Your task to perform on an android device: open app "ColorNote Notepad Notes" (install if not already installed) Image 0: 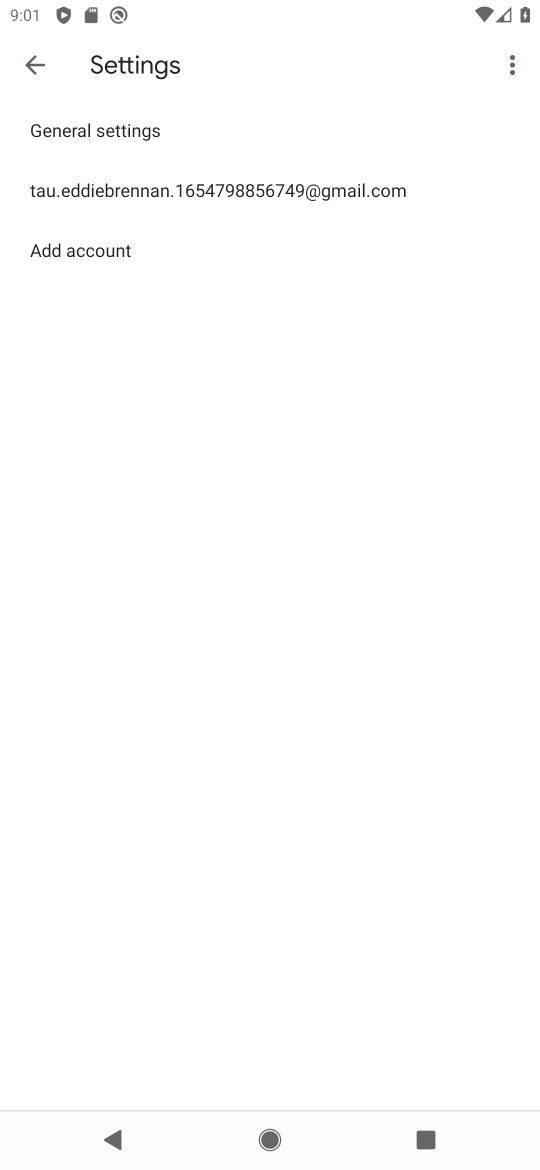
Step 0: press home button
Your task to perform on an android device: open app "ColorNote Notepad Notes" (install if not already installed) Image 1: 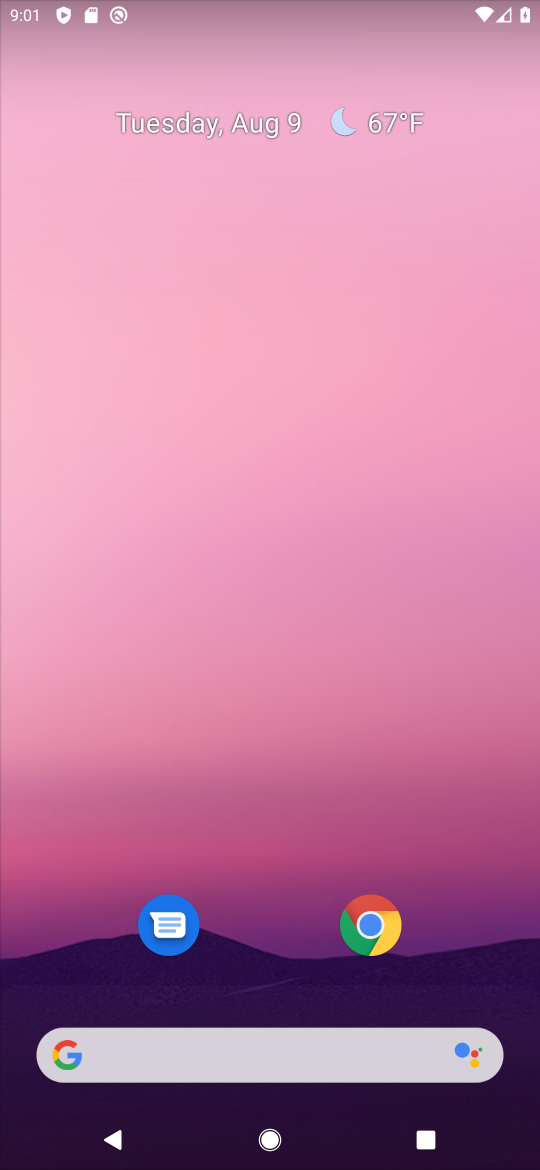
Step 1: drag from (503, 987) to (315, 12)
Your task to perform on an android device: open app "ColorNote Notepad Notes" (install if not already installed) Image 2: 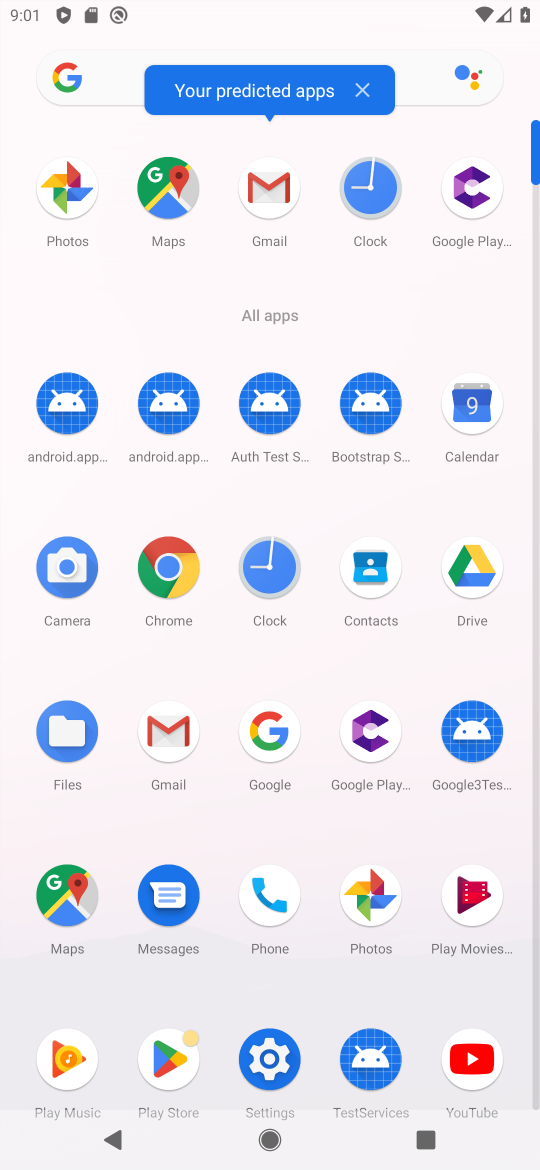
Step 2: click (165, 1063)
Your task to perform on an android device: open app "ColorNote Notepad Notes" (install if not already installed) Image 3: 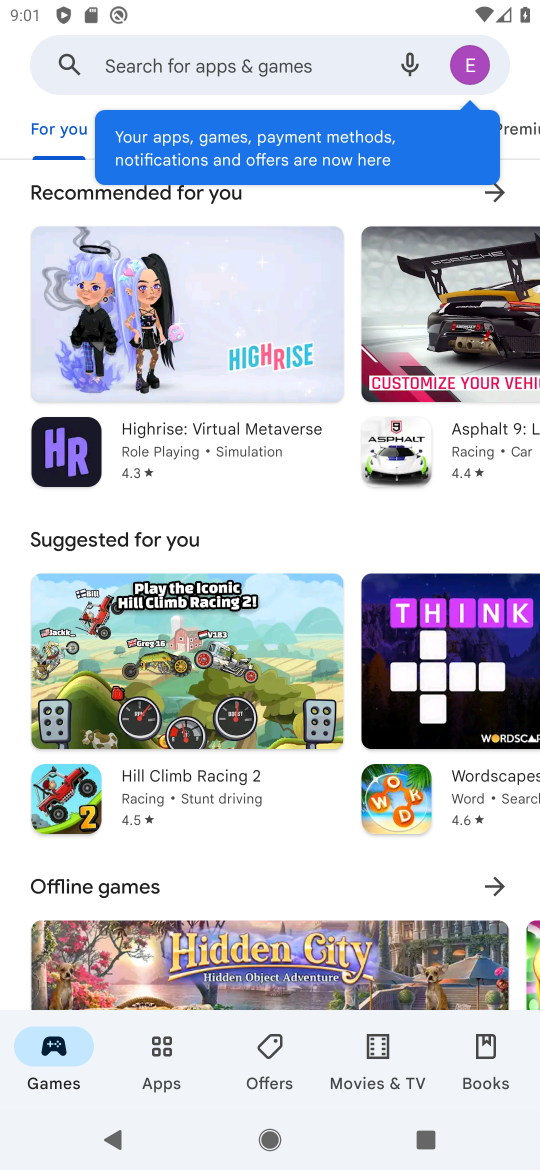
Step 3: click (200, 67)
Your task to perform on an android device: open app "ColorNote Notepad Notes" (install if not already installed) Image 4: 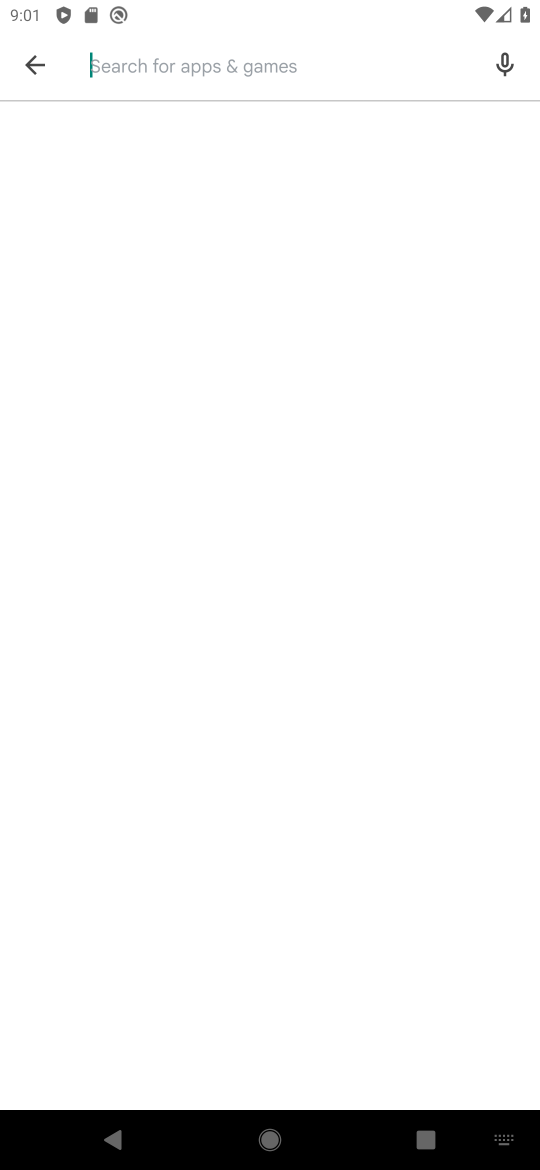
Step 4: type "ColorNote Notepad Notes"
Your task to perform on an android device: open app "ColorNote Notepad Notes" (install if not already installed) Image 5: 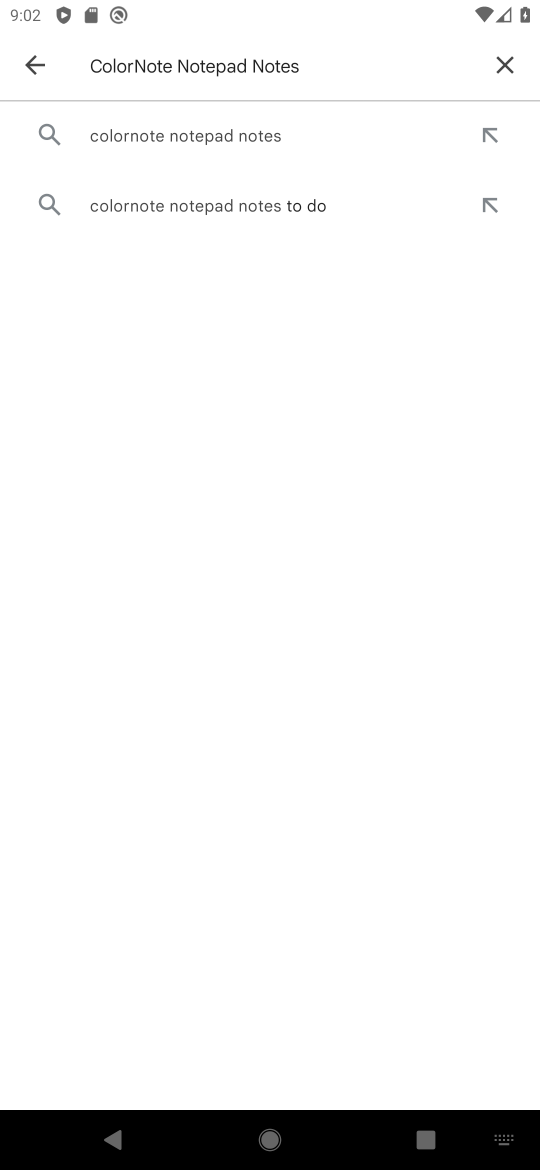
Step 5: click (156, 133)
Your task to perform on an android device: open app "ColorNote Notepad Notes" (install if not already installed) Image 6: 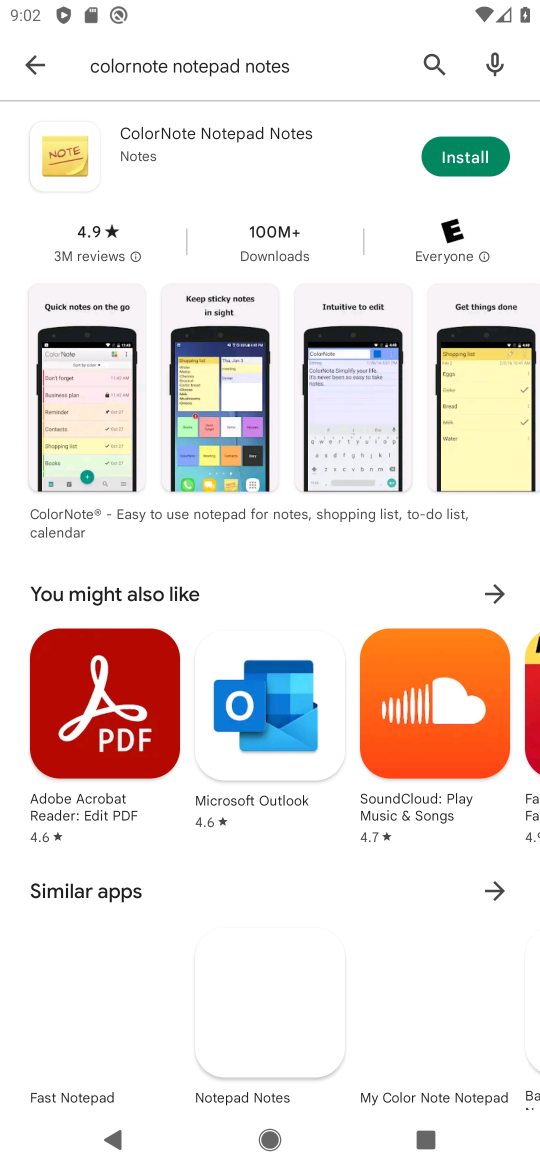
Step 6: task complete